Your task to perform on an android device: turn on data saver in the chrome app Image 0: 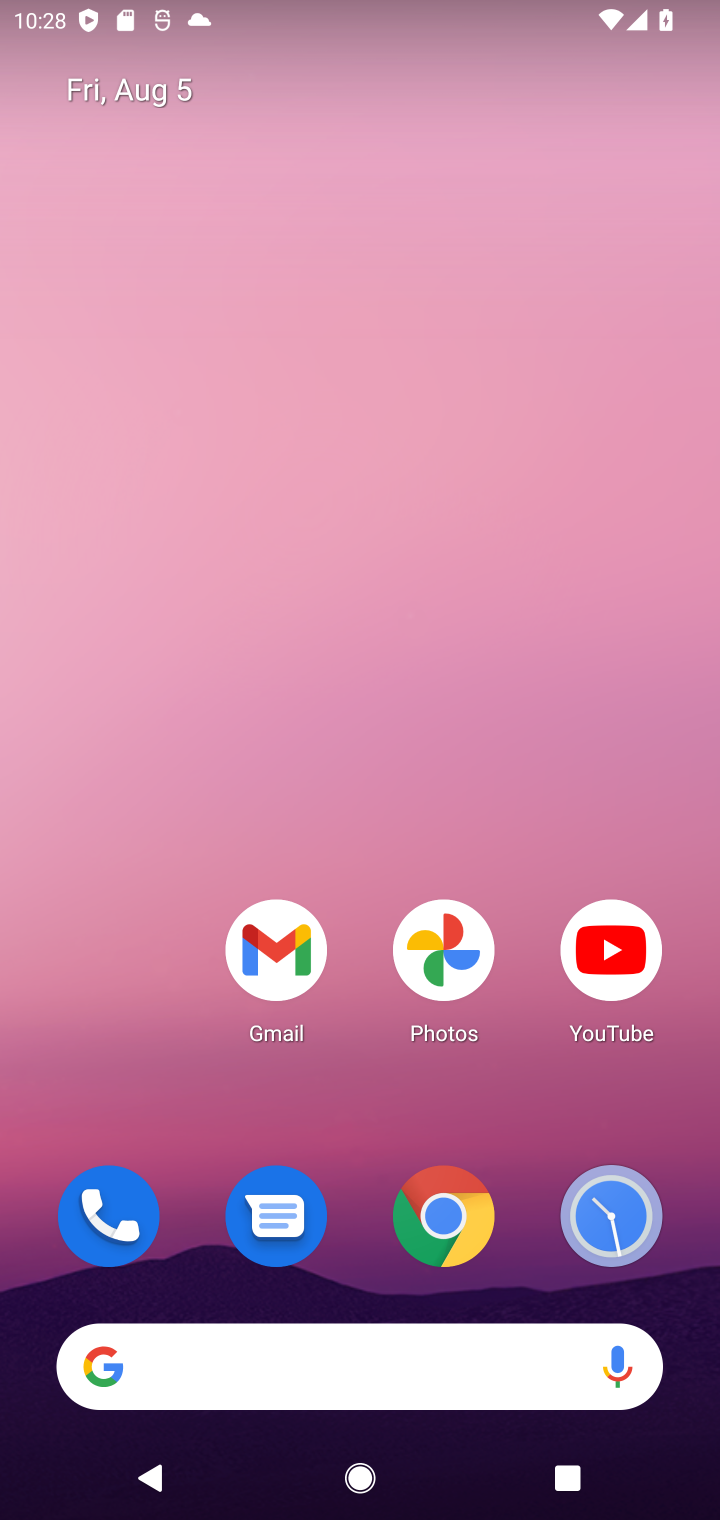
Step 0: drag from (454, 1342) to (468, 249)
Your task to perform on an android device: turn on data saver in the chrome app Image 1: 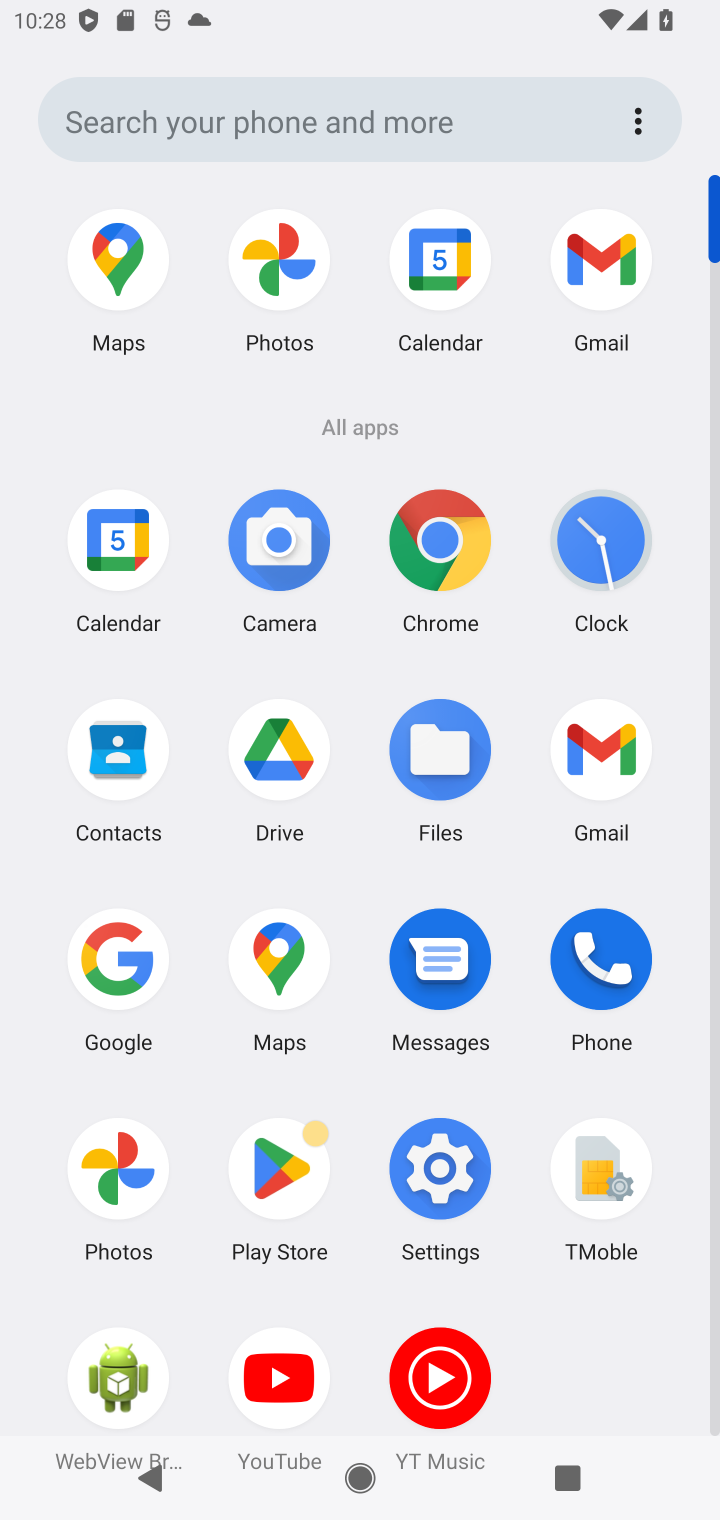
Step 1: click (440, 566)
Your task to perform on an android device: turn on data saver in the chrome app Image 2: 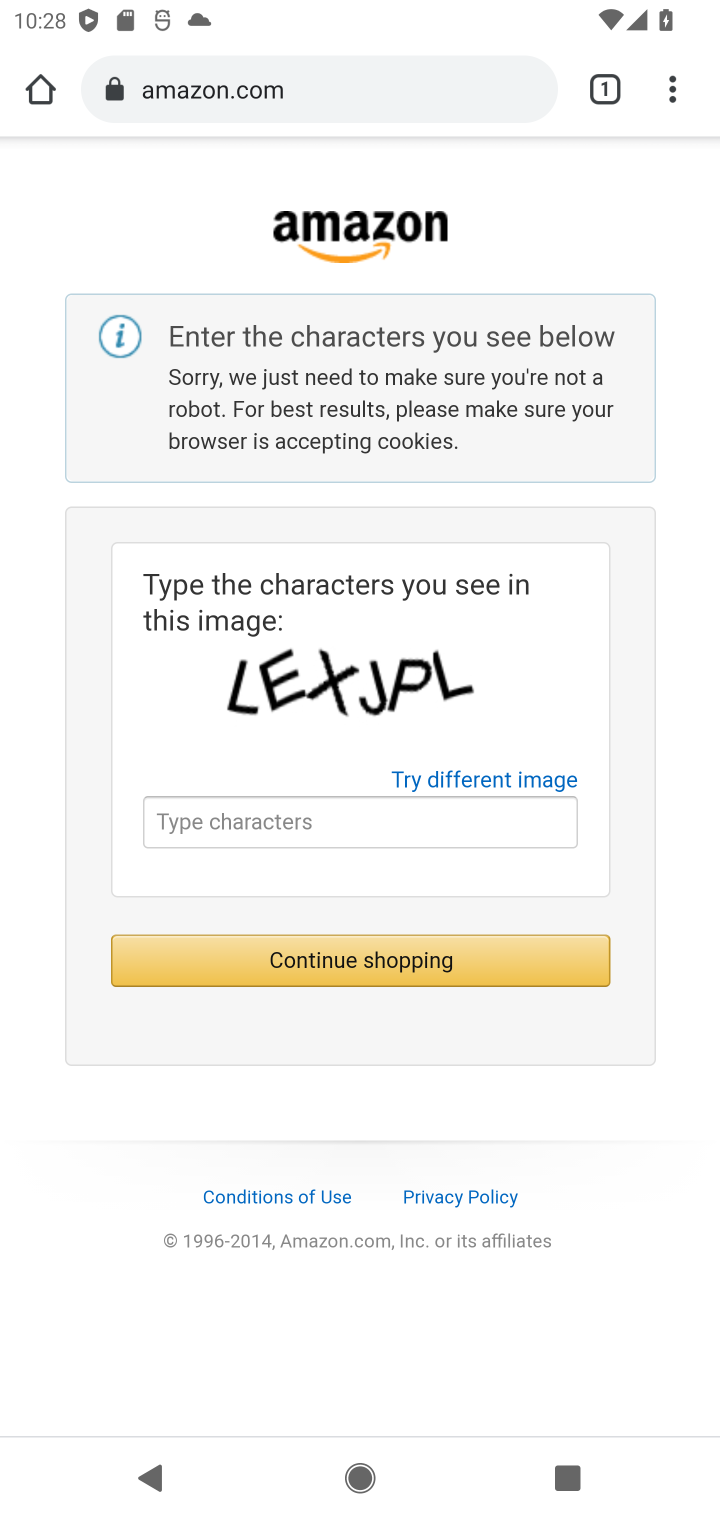
Step 2: click (663, 90)
Your task to perform on an android device: turn on data saver in the chrome app Image 3: 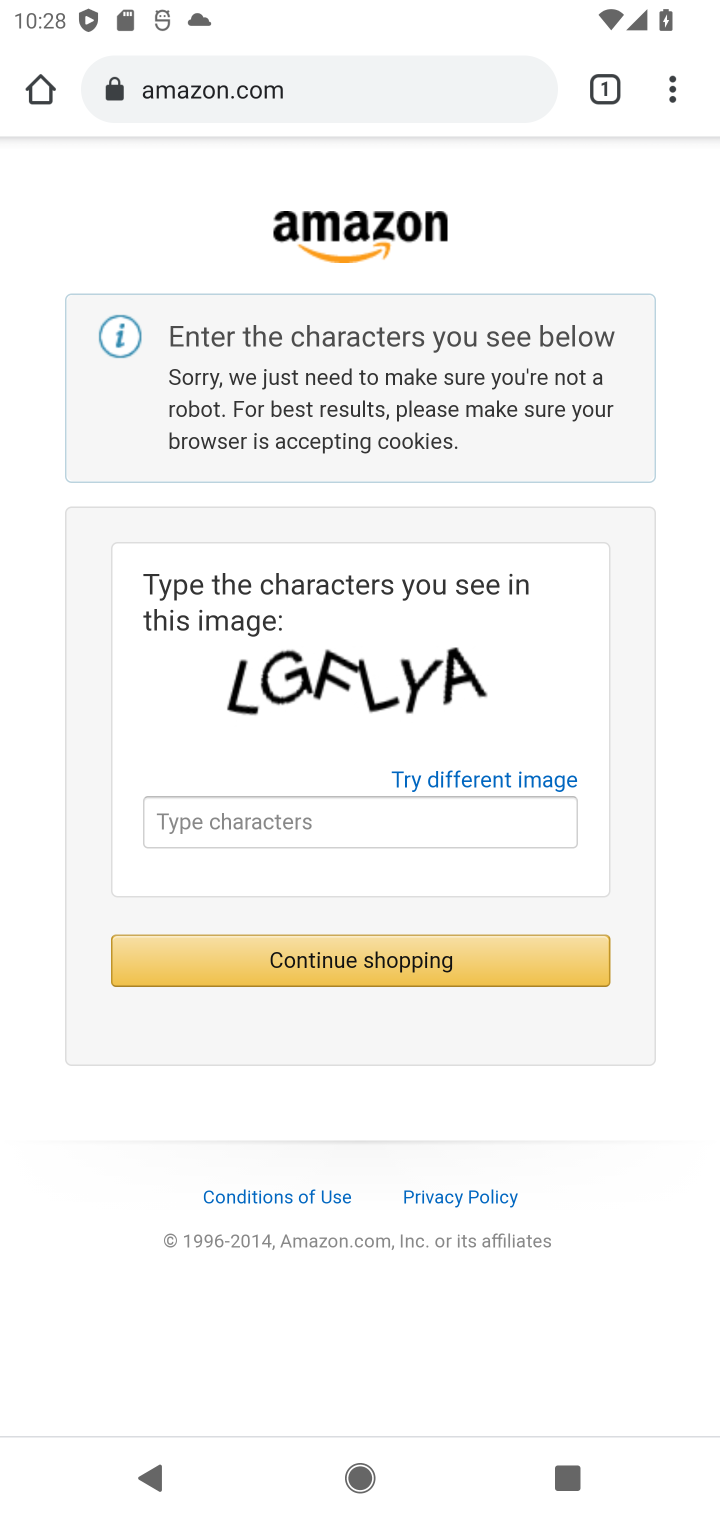
Step 3: click (673, 92)
Your task to perform on an android device: turn on data saver in the chrome app Image 4: 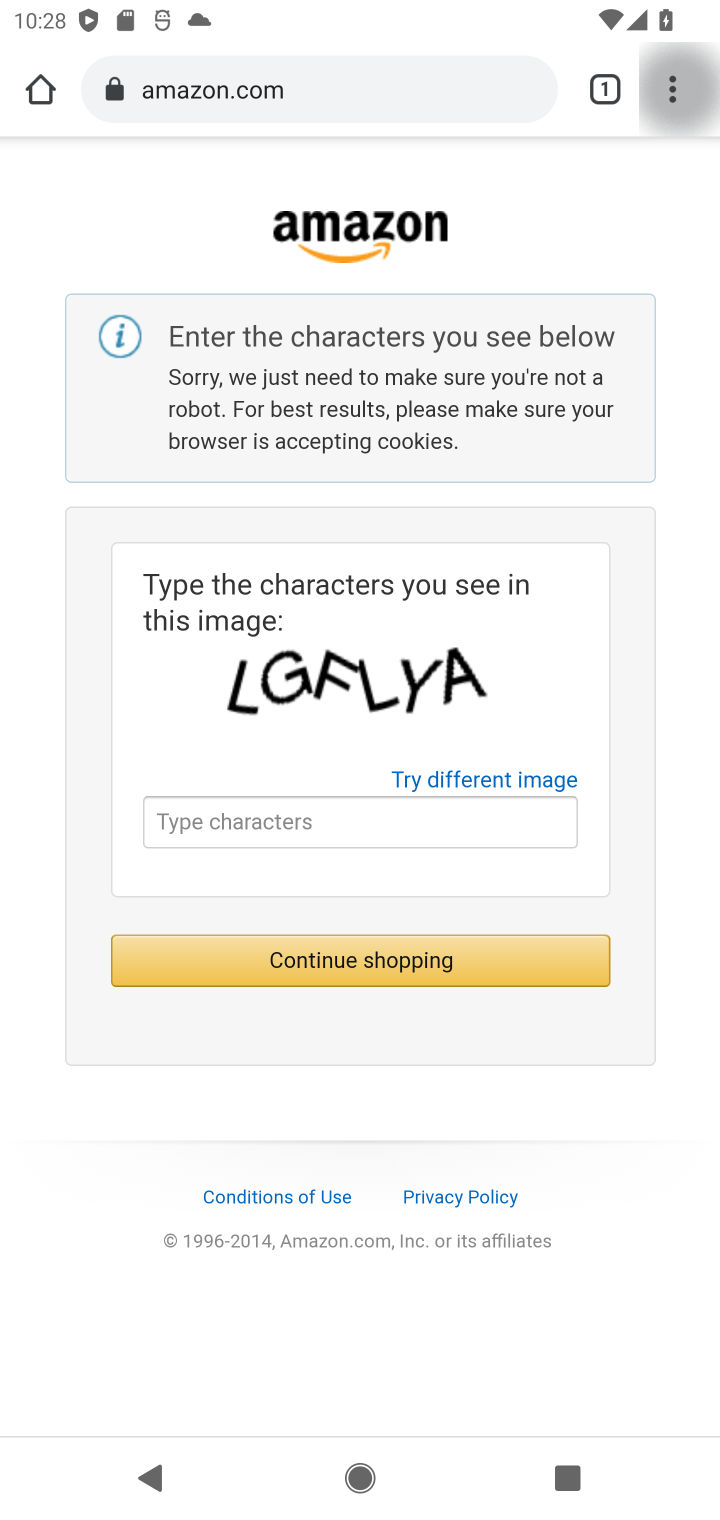
Step 4: drag from (673, 92) to (441, 1235)
Your task to perform on an android device: turn on data saver in the chrome app Image 5: 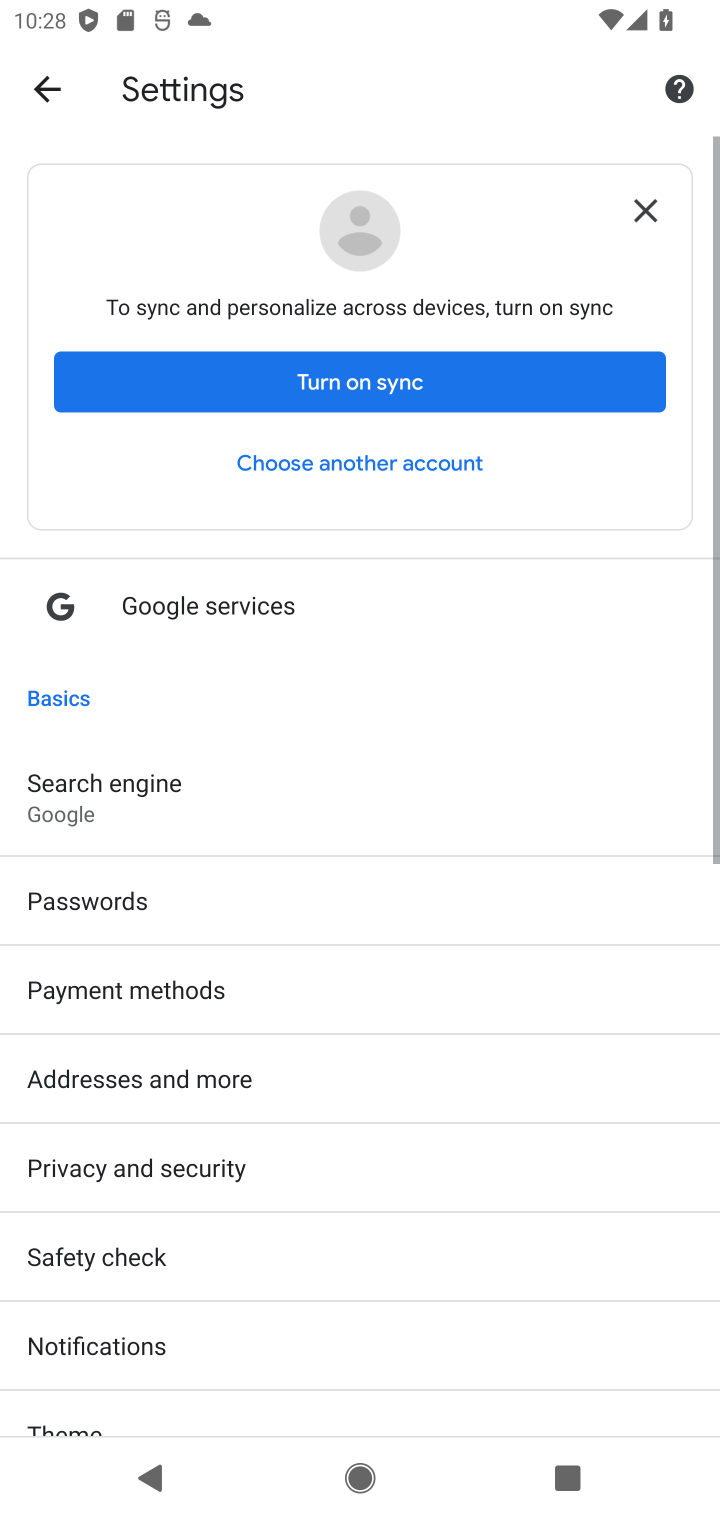
Step 5: drag from (315, 1373) to (355, 592)
Your task to perform on an android device: turn on data saver in the chrome app Image 6: 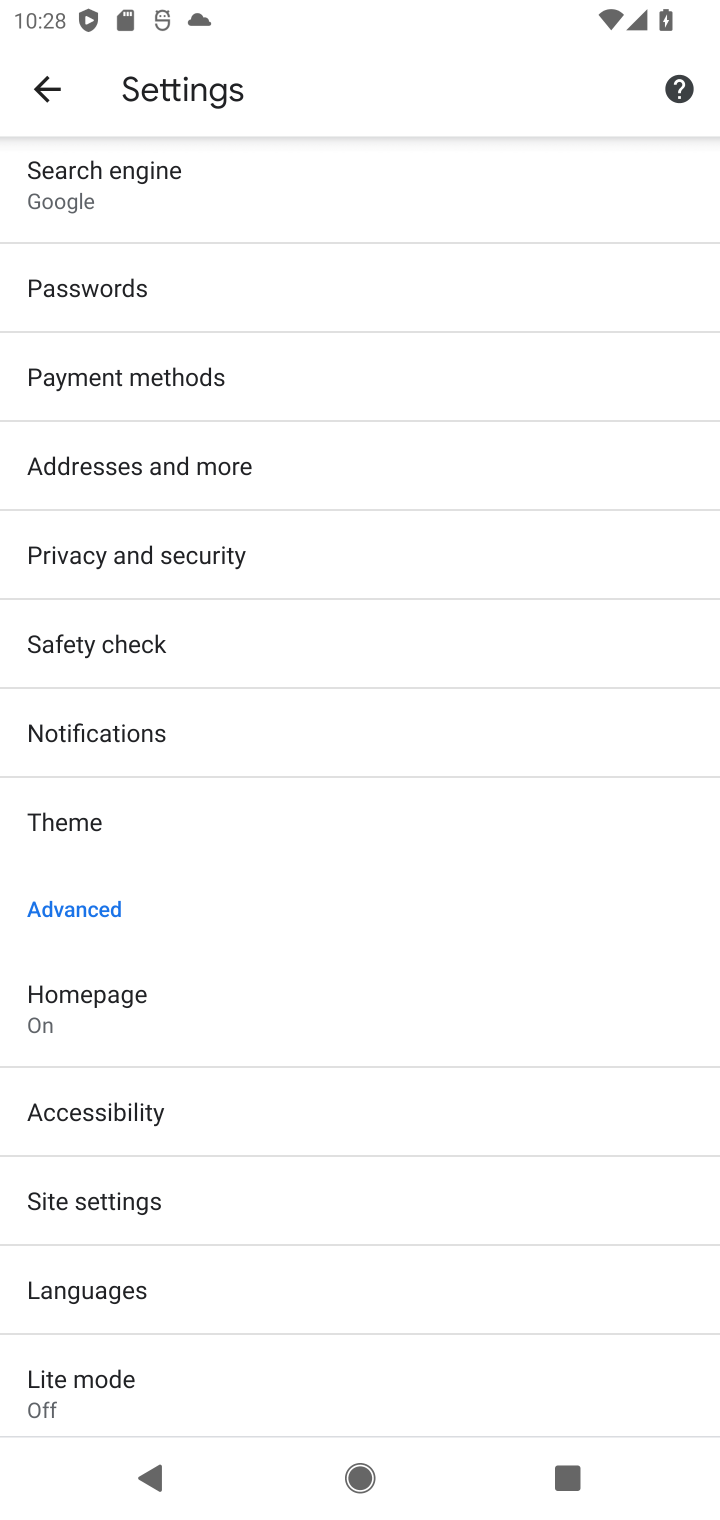
Step 6: click (198, 1396)
Your task to perform on an android device: turn on data saver in the chrome app Image 7: 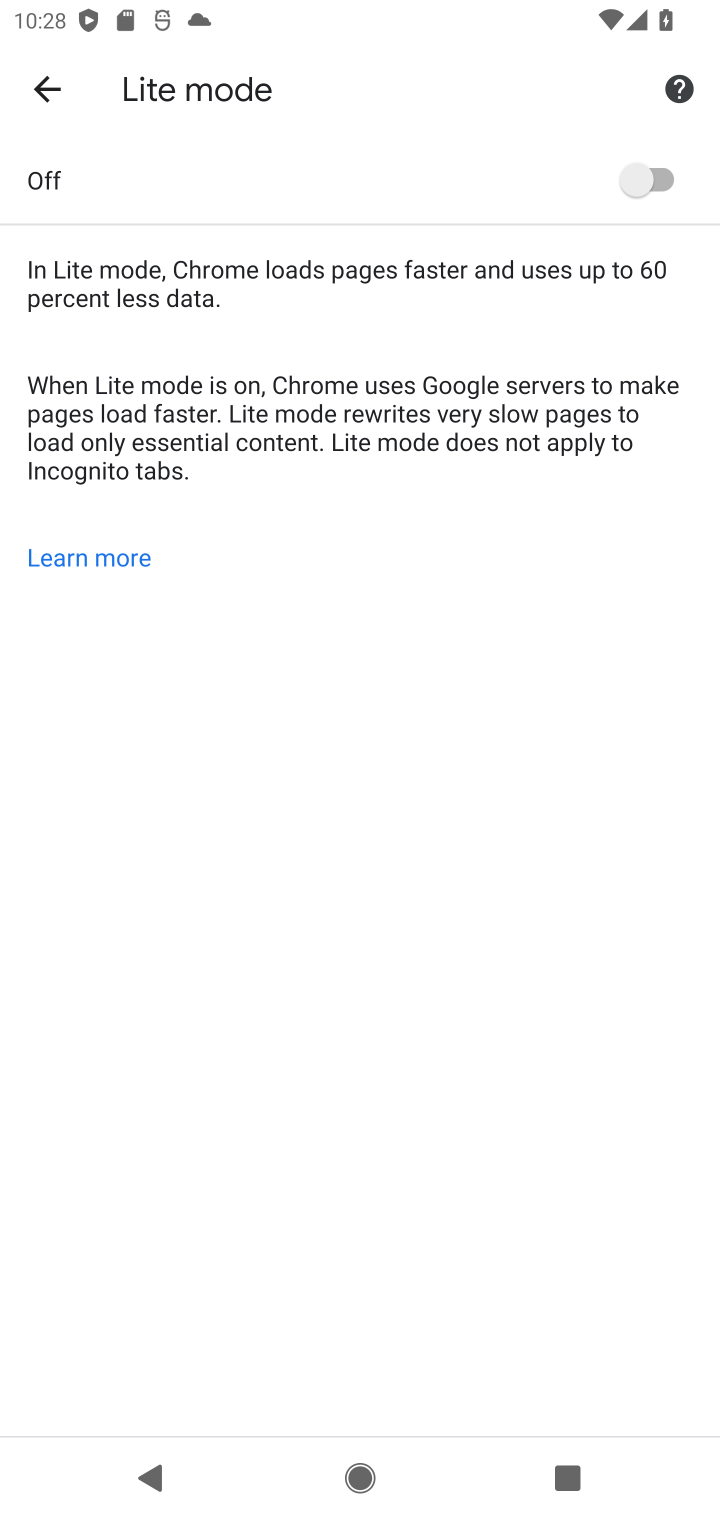
Step 7: click (663, 169)
Your task to perform on an android device: turn on data saver in the chrome app Image 8: 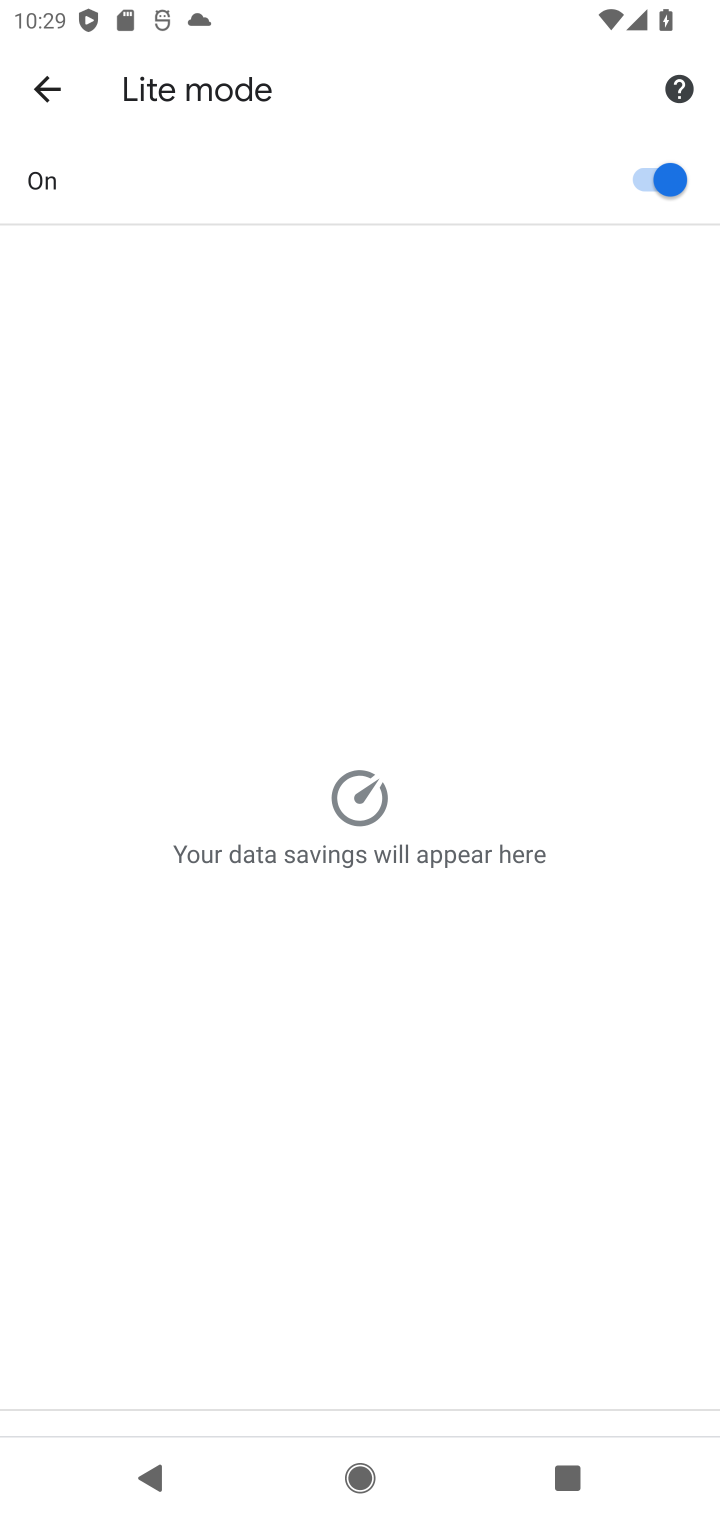
Step 8: task complete